Your task to perform on an android device: Open Google Chrome and open the bookmarks view Image 0: 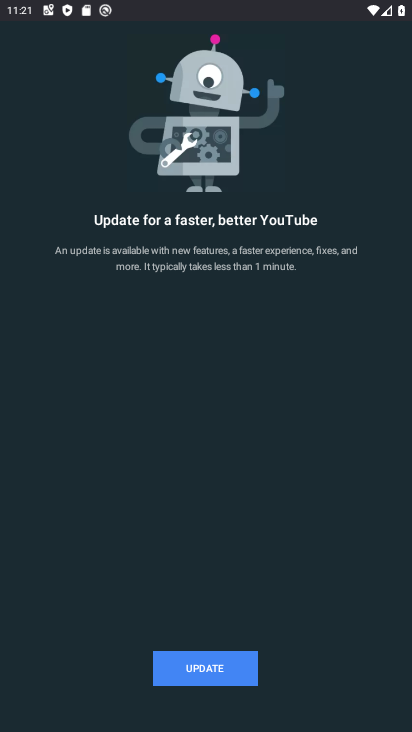
Step 0: press home button
Your task to perform on an android device: Open Google Chrome and open the bookmarks view Image 1: 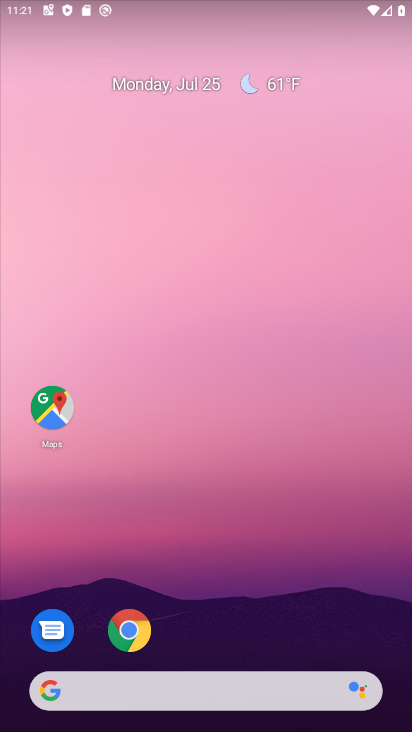
Step 1: click (124, 638)
Your task to perform on an android device: Open Google Chrome and open the bookmarks view Image 2: 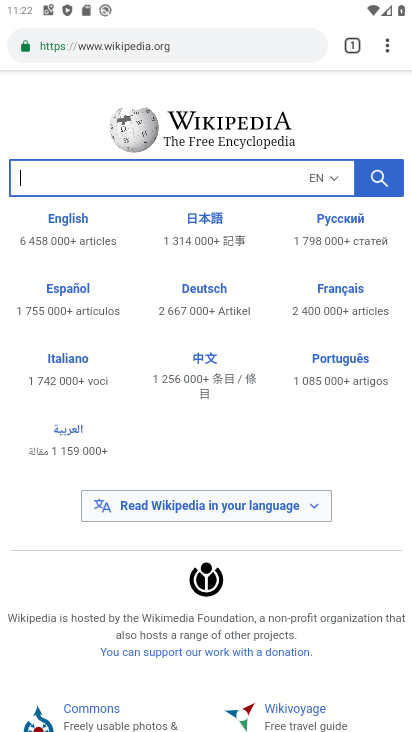
Step 2: click (383, 42)
Your task to perform on an android device: Open Google Chrome and open the bookmarks view Image 3: 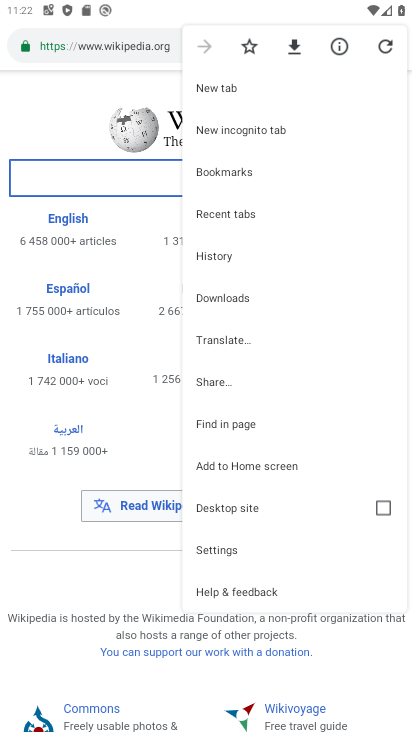
Step 3: click (233, 177)
Your task to perform on an android device: Open Google Chrome and open the bookmarks view Image 4: 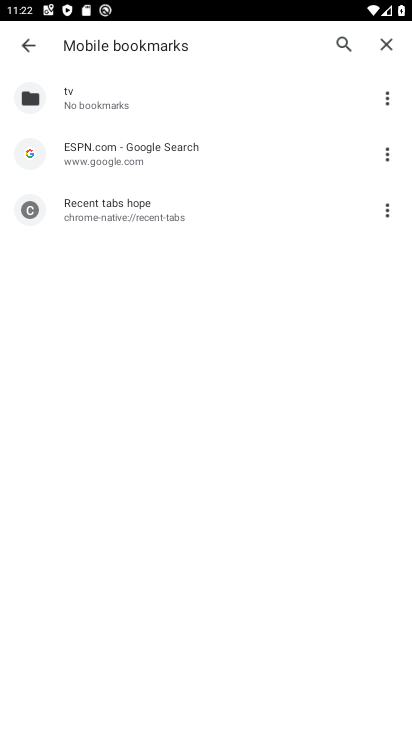
Step 4: task complete